Your task to perform on an android device: clear history in the chrome app Image 0: 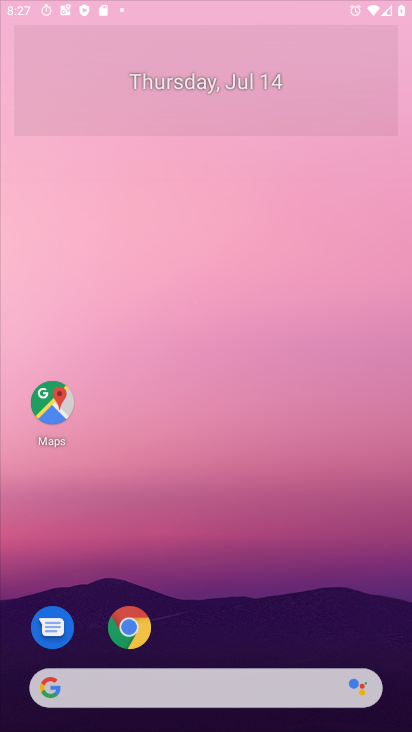
Step 0: drag from (213, 657) to (225, 249)
Your task to perform on an android device: clear history in the chrome app Image 1: 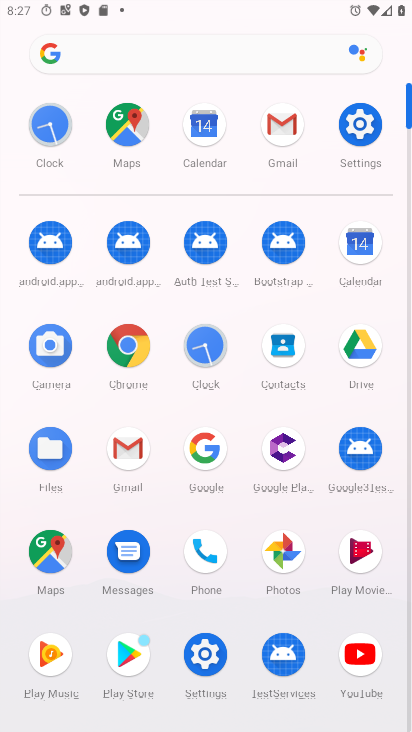
Step 1: click (136, 342)
Your task to perform on an android device: clear history in the chrome app Image 2: 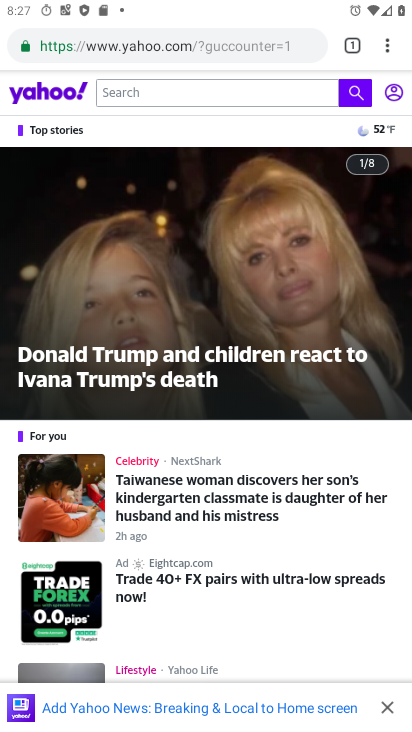
Step 2: click (382, 42)
Your task to perform on an android device: clear history in the chrome app Image 3: 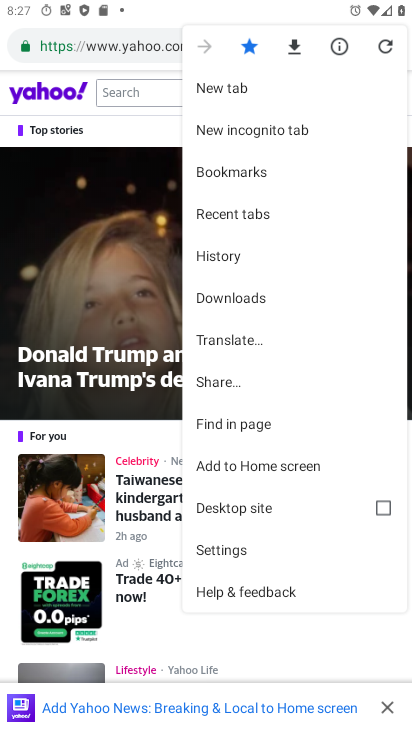
Step 3: click (220, 256)
Your task to perform on an android device: clear history in the chrome app Image 4: 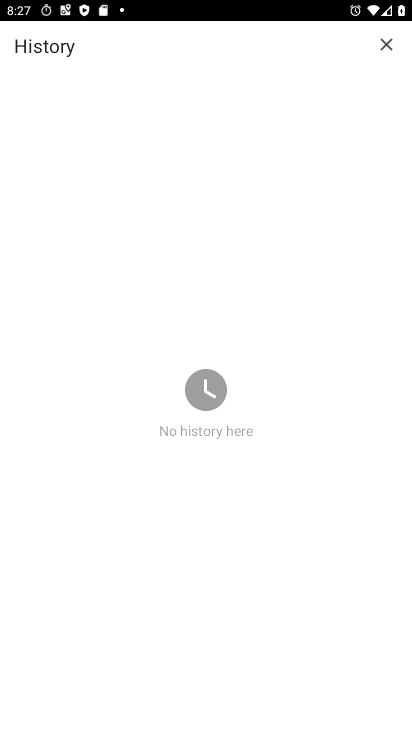
Step 4: task complete